Your task to perform on an android device: Go to sound settings Image 0: 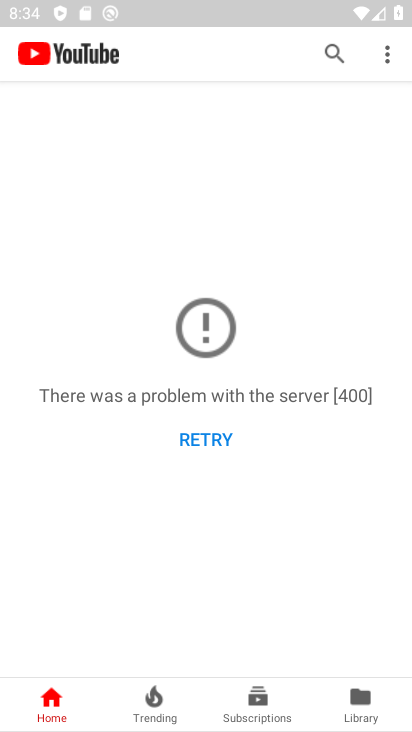
Step 0: press home button
Your task to perform on an android device: Go to sound settings Image 1: 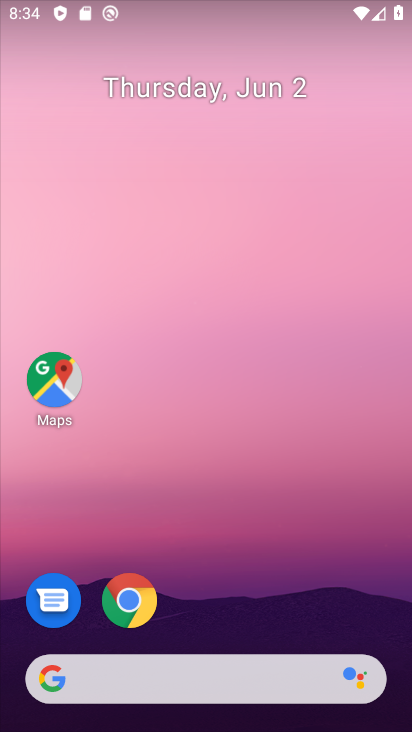
Step 1: drag from (185, 611) to (191, 23)
Your task to perform on an android device: Go to sound settings Image 2: 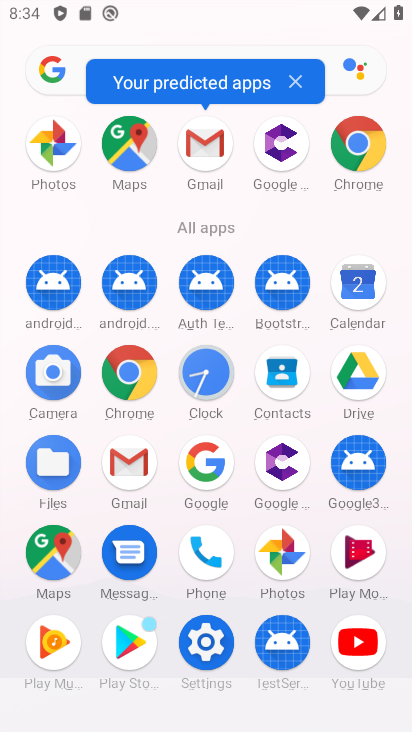
Step 2: click (197, 633)
Your task to perform on an android device: Go to sound settings Image 3: 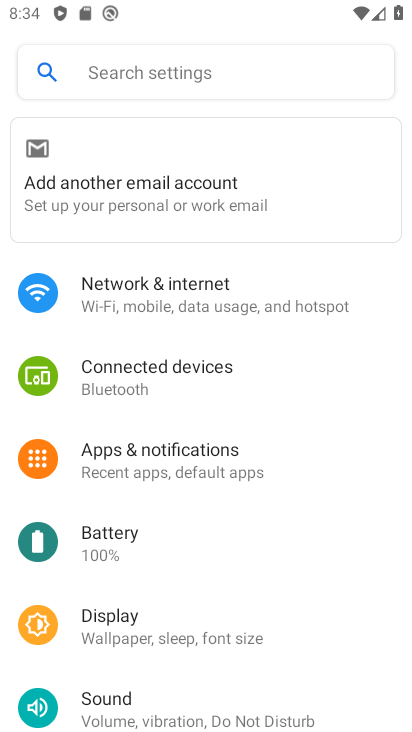
Step 3: click (157, 705)
Your task to perform on an android device: Go to sound settings Image 4: 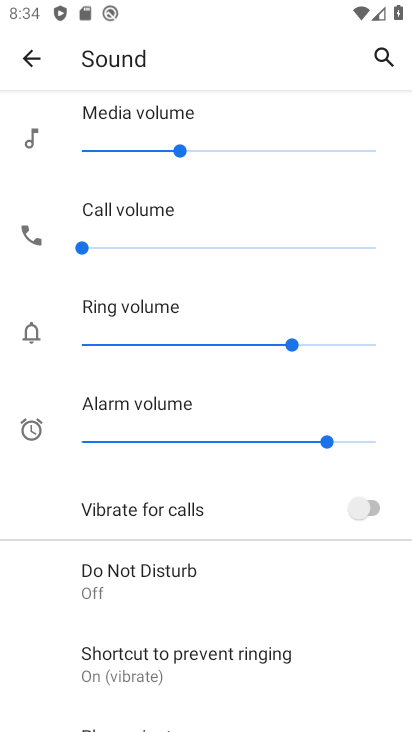
Step 4: task complete